Your task to perform on an android device: add a contact Image 0: 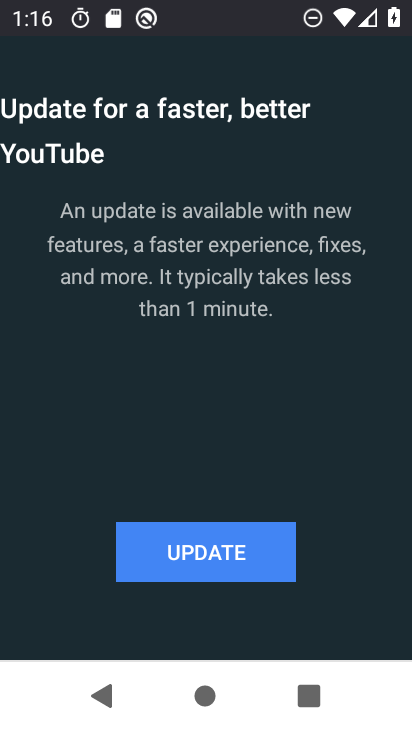
Step 0: press back button
Your task to perform on an android device: add a contact Image 1: 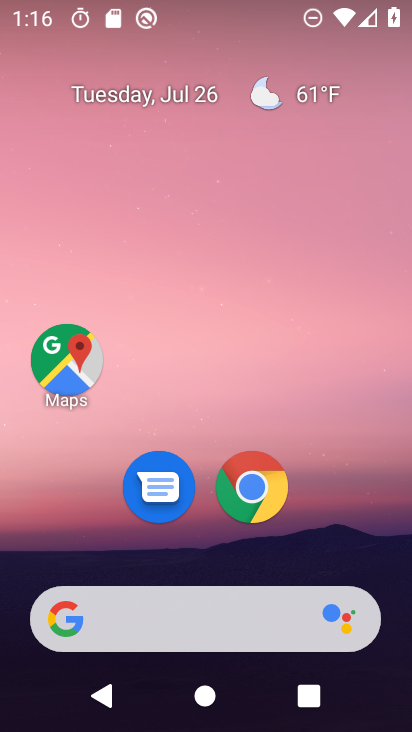
Step 1: drag from (111, 540) to (214, 31)
Your task to perform on an android device: add a contact Image 2: 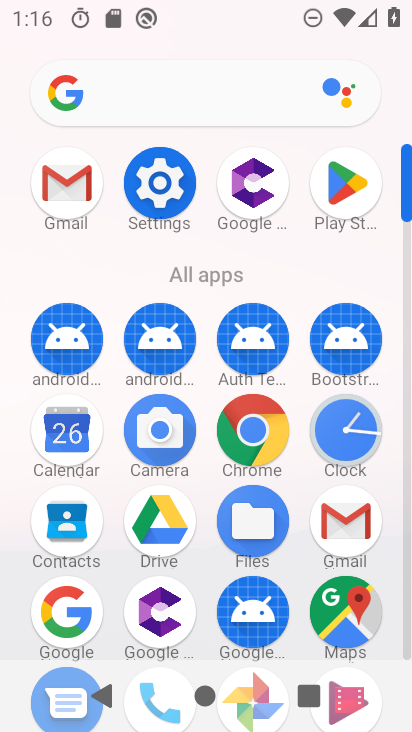
Step 2: click (56, 537)
Your task to perform on an android device: add a contact Image 3: 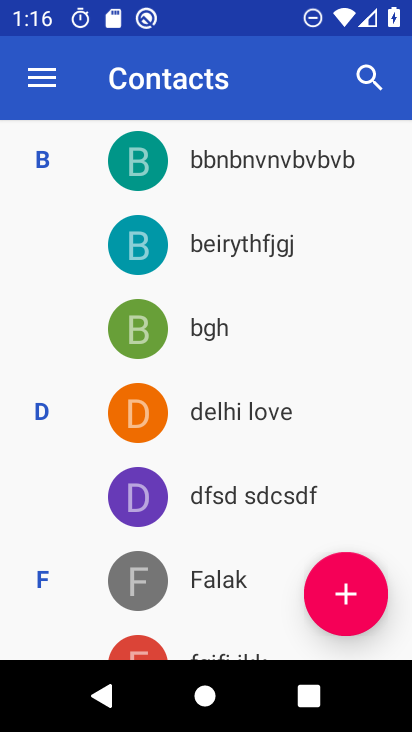
Step 3: click (361, 591)
Your task to perform on an android device: add a contact Image 4: 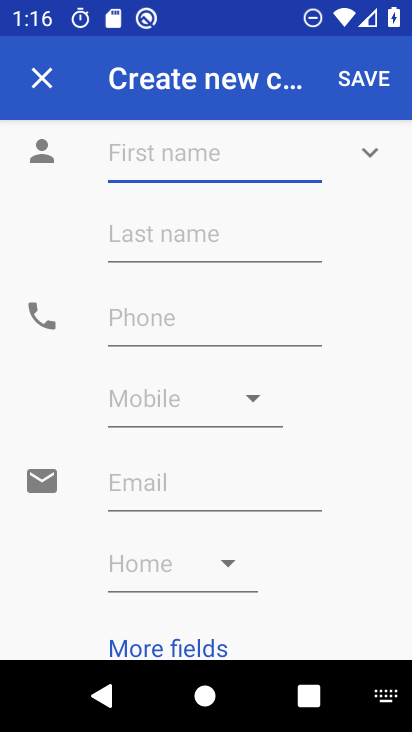
Step 4: click (154, 156)
Your task to perform on an android device: add a contact Image 5: 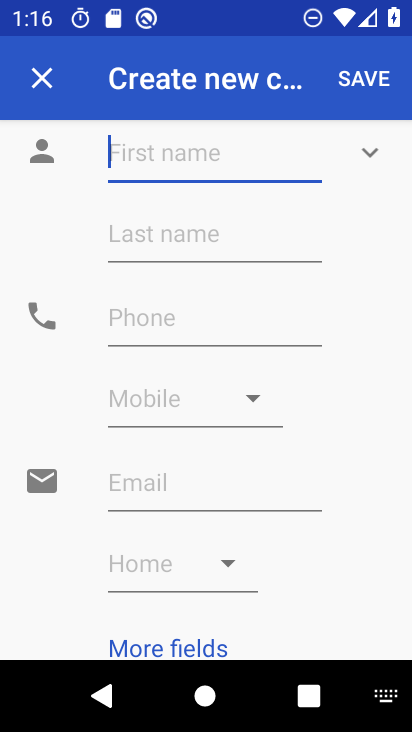
Step 5: type "hghvh"
Your task to perform on an android device: add a contact Image 6: 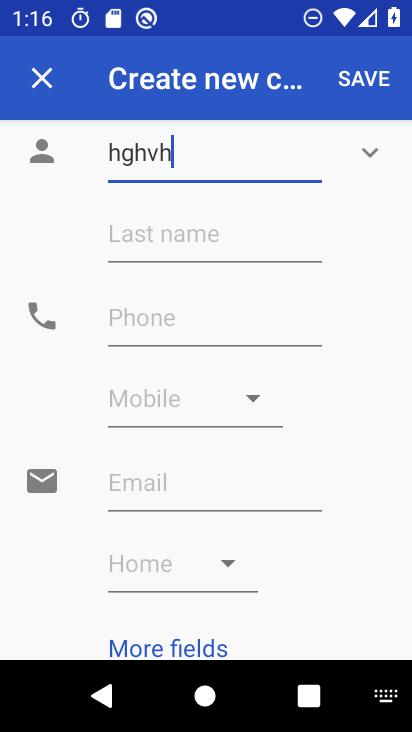
Step 6: click (172, 321)
Your task to perform on an android device: add a contact Image 7: 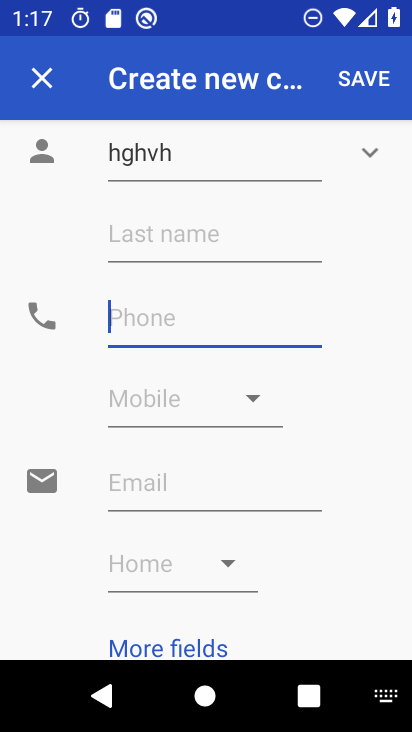
Step 7: type "8787"
Your task to perform on an android device: add a contact Image 8: 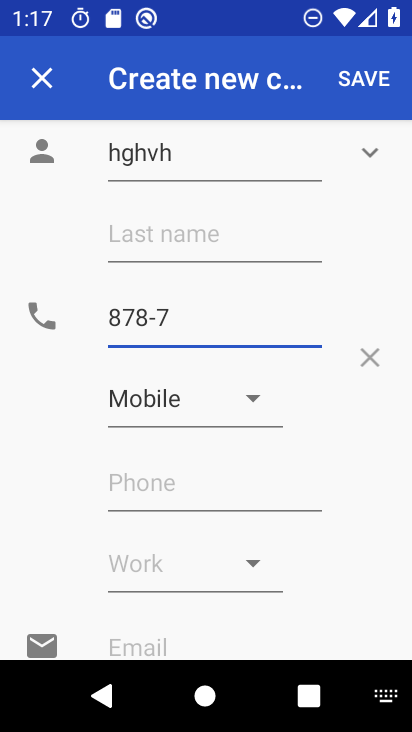
Step 8: click (372, 74)
Your task to perform on an android device: add a contact Image 9: 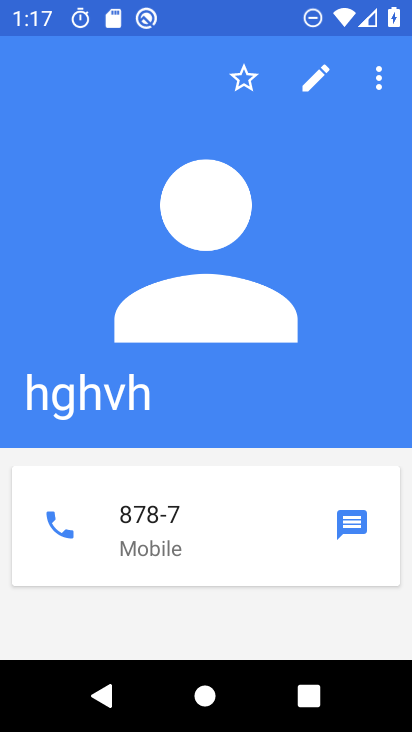
Step 9: task complete